Your task to perform on an android device: Open Reddit.com Image 0: 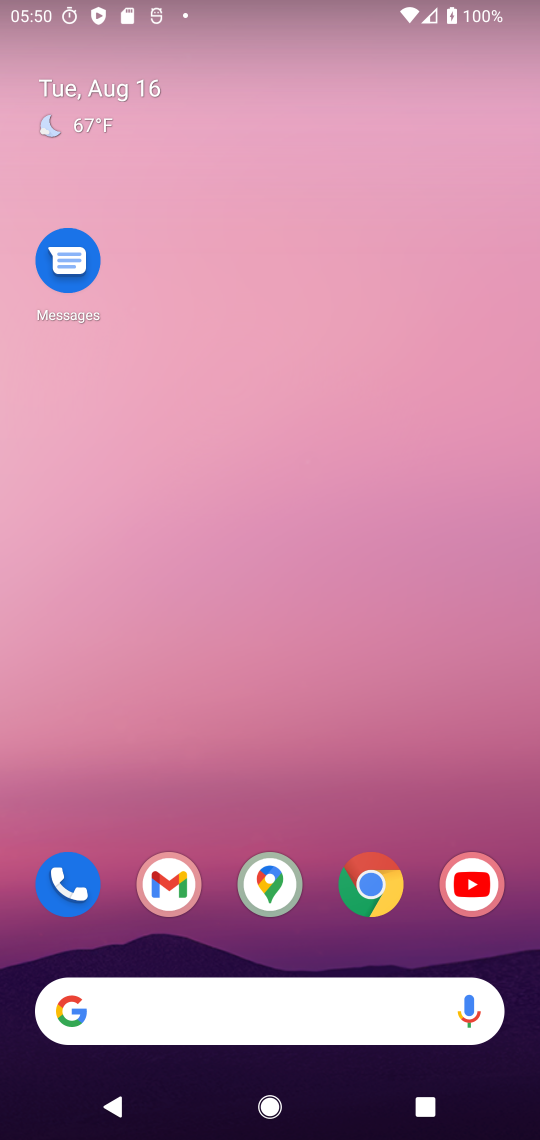
Step 0: click (151, 1013)
Your task to perform on an android device: Open Reddit.com Image 1: 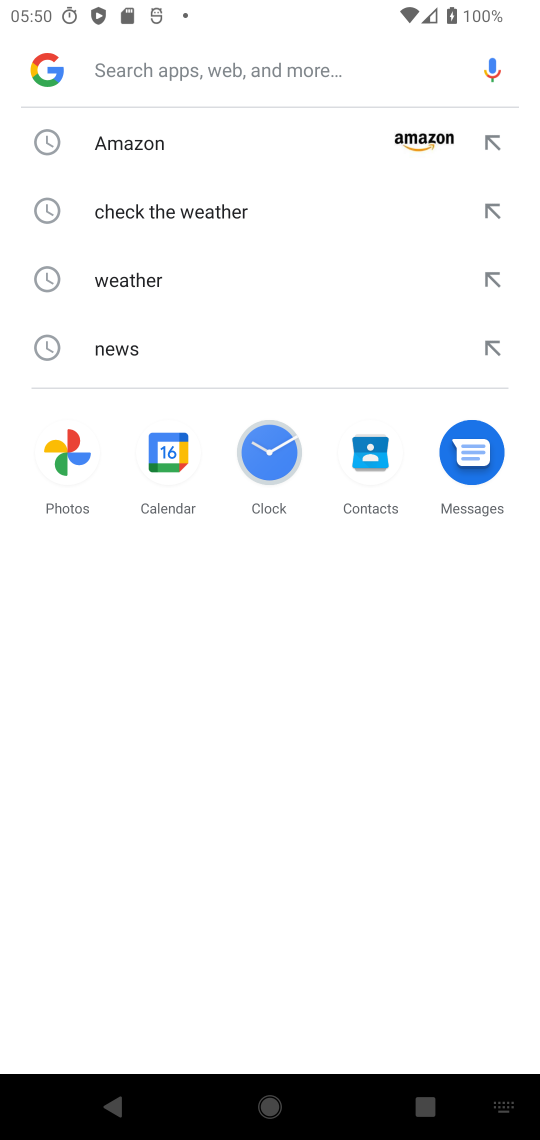
Step 1: type "Reddit.com"
Your task to perform on an android device: Open Reddit.com Image 2: 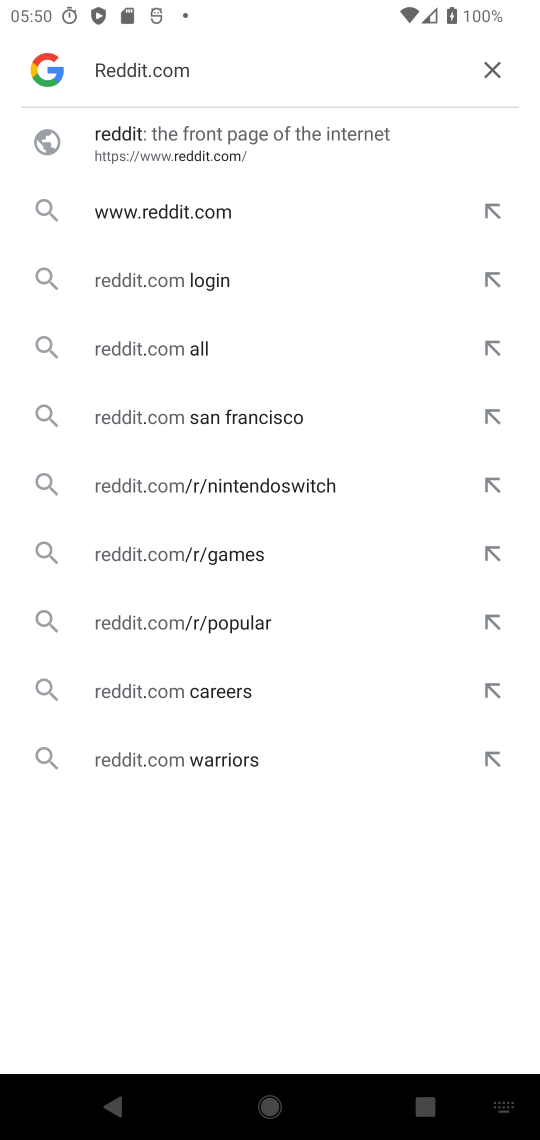
Step 2: click (196, 212)
Your task to perform on an android device: Open Reddit.com Image 3: 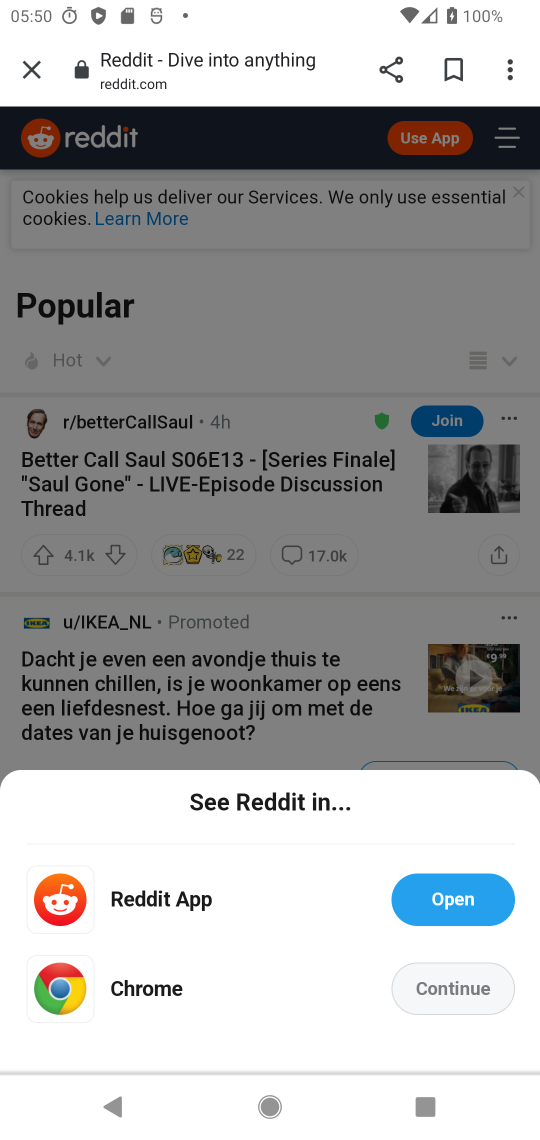
Step 3: task complete